Your task to perform on an android device: turn off translation in the chrome app Image 0: 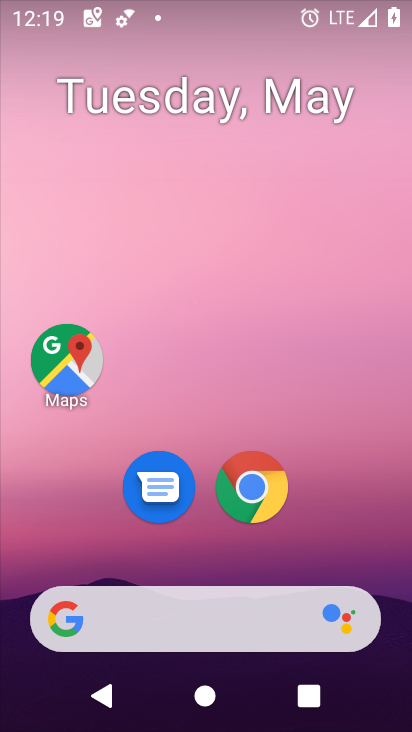
Step 0: drag from (39, 522) to (159, 204)
Your task to perform on an android device: turn off translation in the chrome app Image 1: 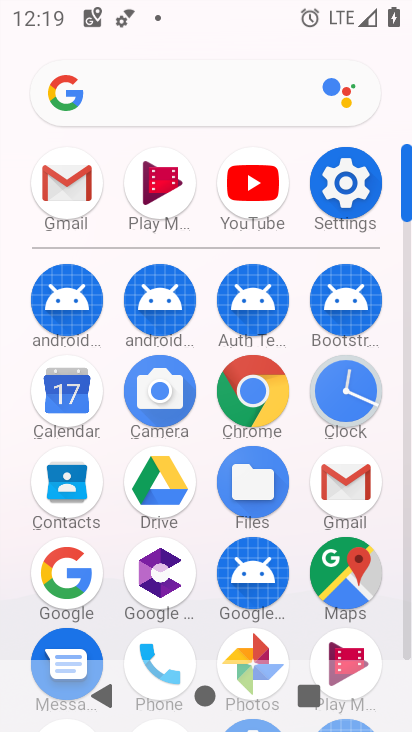
Step 1: click (339, 185)
Your task to perform on an android device: turn off translation in the chrome app Image 2: 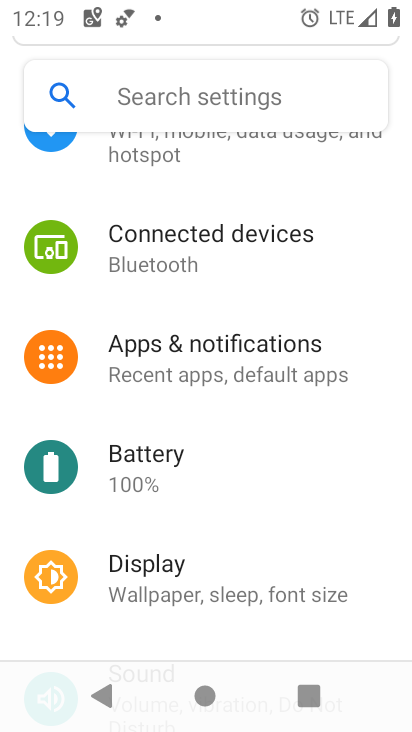
Step 2: press home button
Your task to perform on an android device: turn off translation in the chrome app Image 3: 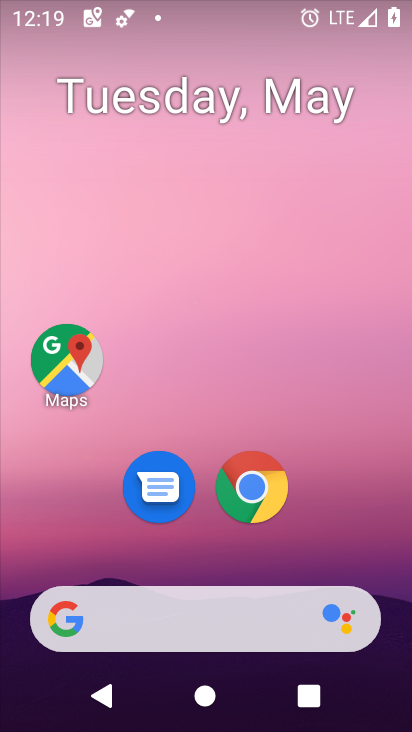
Step 3: click (244, 477)
Your task to perform on an android device: turn off translation in the chrome app Image 4: 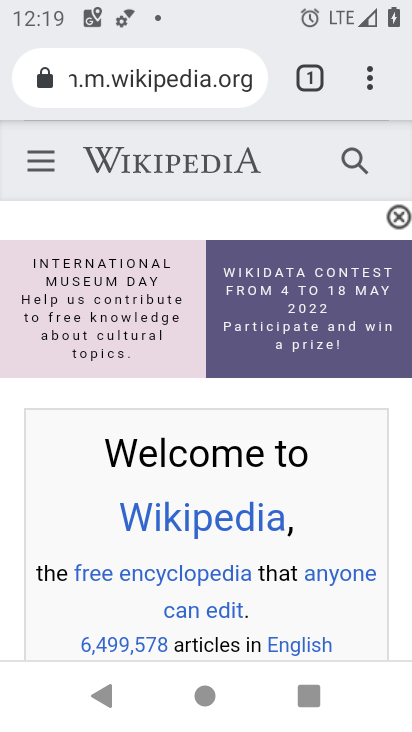
Step 4: click (304, 76)
Your task to perform on an android device: turn off translation in the chrome app Image 5: 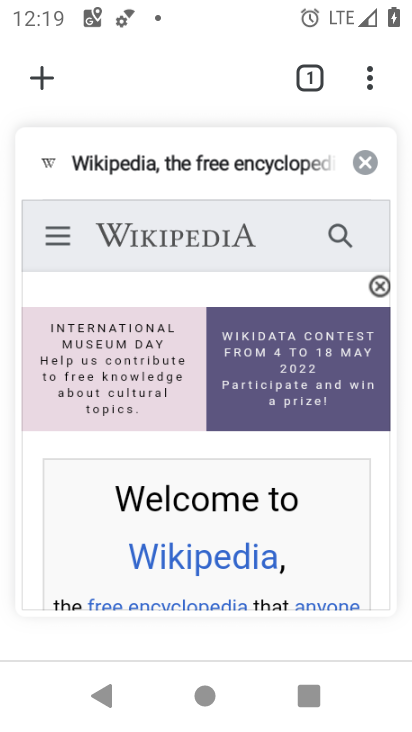
Step 5: click (360, 160)
Your task to perform on an android device: turn off translation in the chrome app Image 6: 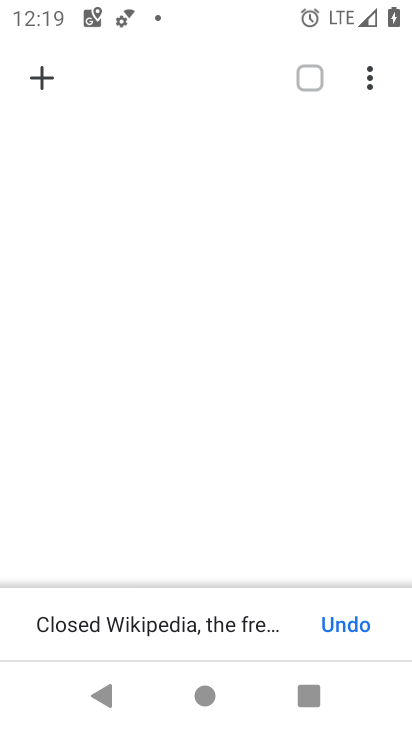
Step 6: click (40, 82)
Your task to perform on an android device: turn off translation in the chrome app Image 7: 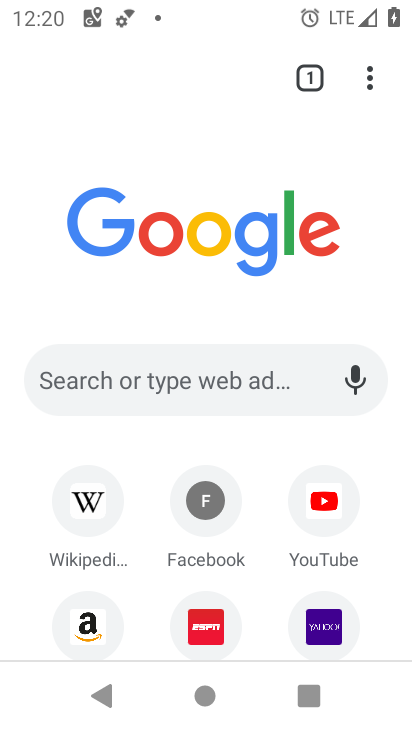
Step 7: click (375, 76)
Your task to perform on an android device: turn off translation in the chrome app Image 8: 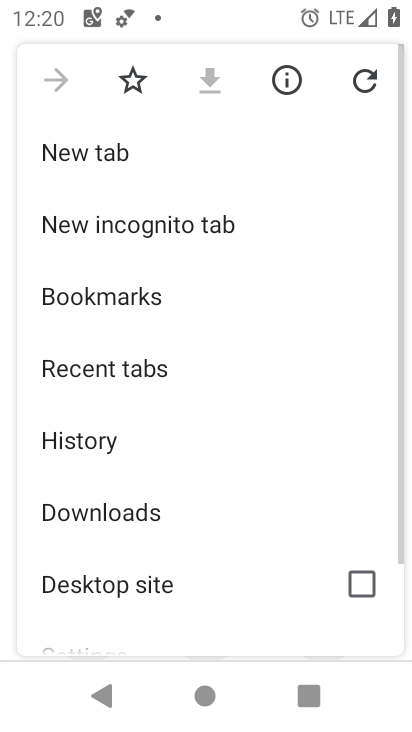
Step 8: drag from (75, 532) to (214, 105)
Your task to perform on an android device: turn off translation in the chrome app Image 9: 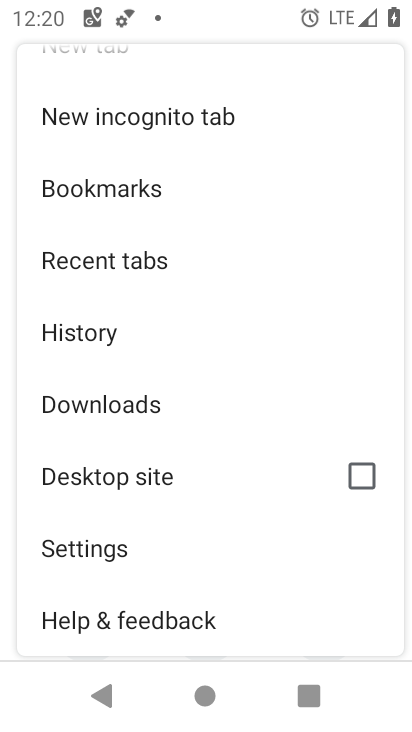
Step 9: click (69, 538)
Your task to perform on an android device: turn off translation in the chrome app Image 10: 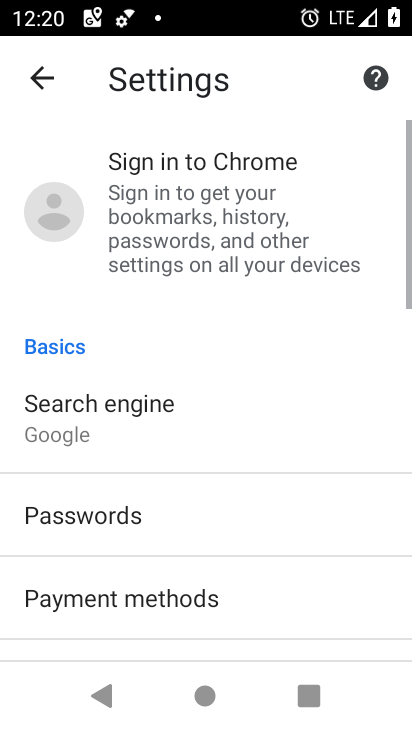
Step 10: drag from (13, 429) to (132, 118)
Your task to perform on an android device: turn off translation in the chrome app Image 11: 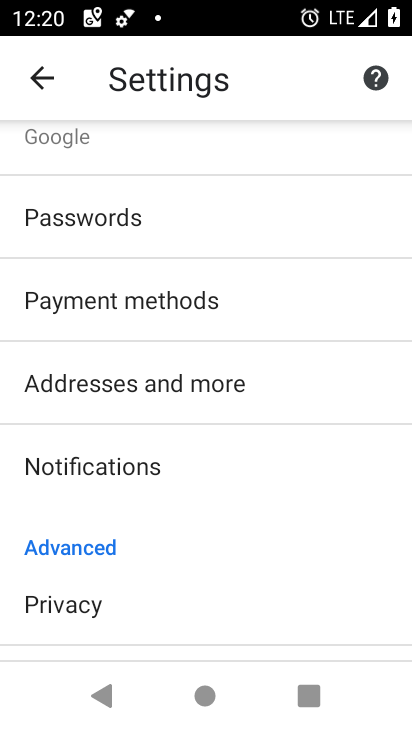
Step 11: drag from (13, 501) to (162, 131)
Your task to perform on an android device: turn off translation in the chrome app Image 12: 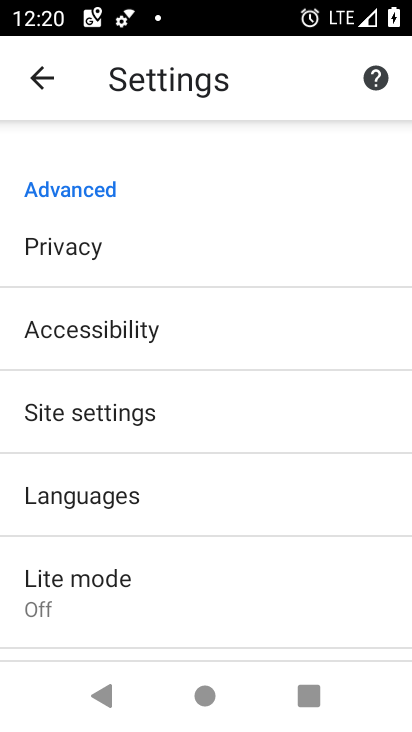
Step 12: click (89, 580)
Your task to perform on an android device: turn off translation in the chrome app Image 13: 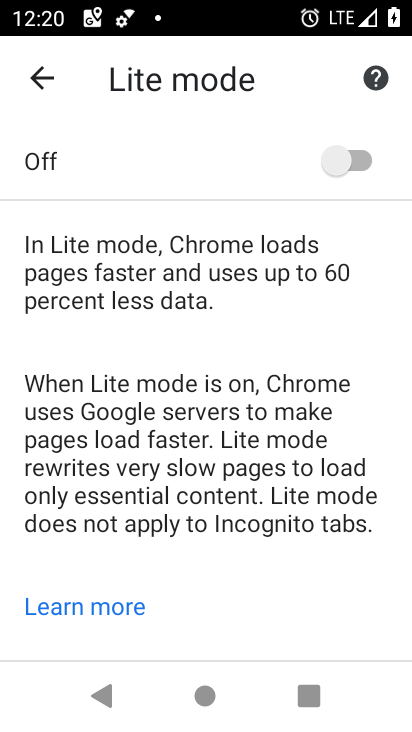
Step 13: task complete